Your task to perform on an android device: open chrome and create a bookmark for the current page Image 0: 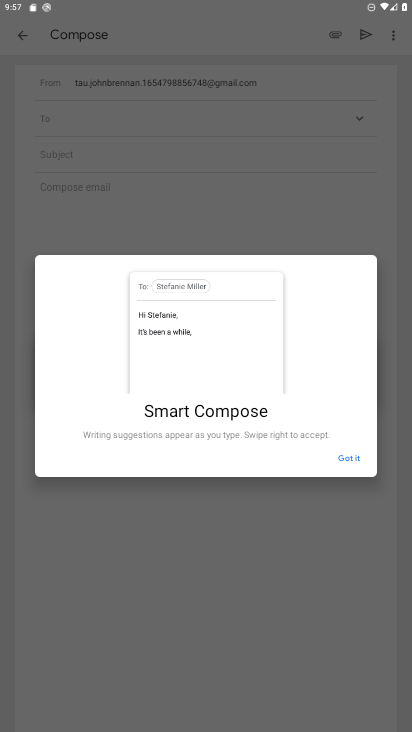
Step 0: press home button
Your task to perform on an android device: open chrome and create a bookmark for the current page Image 1: 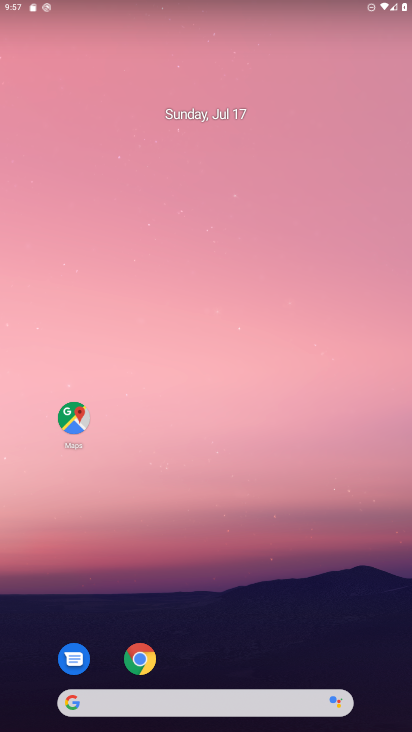
Step 1: click (134, 652)
Your task to perform on an android device: open chrome and create a bookmark for the current page Image 2: 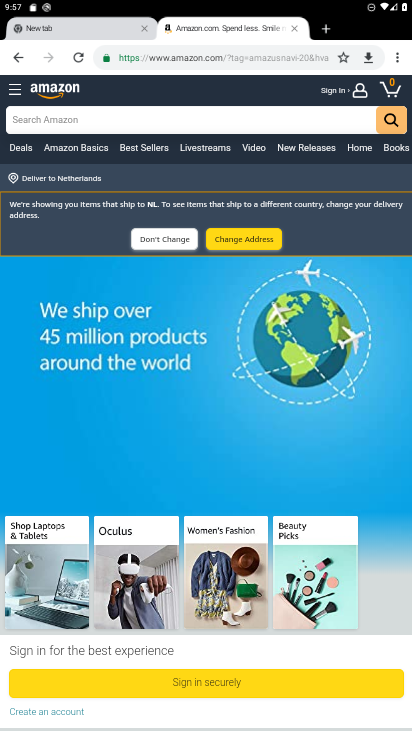
Step 2: click (401, 51)
Your task to perform on an android device: open chrome and create a bookmark for the current page Image 3: 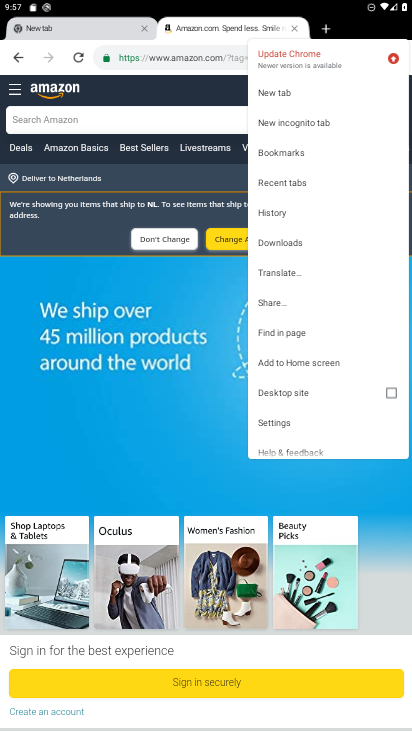
Step 3: click (178, 78)
Your task to perform on an android device: open chrome and create a bookmark for the current page Image 4: 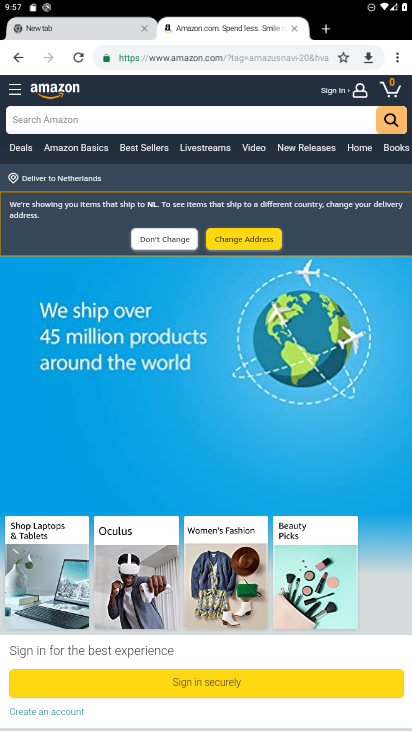
Step 4: click (348, 62)
Your task to perform on an android device: open chrome and create a bookmark for the current page Image 5: 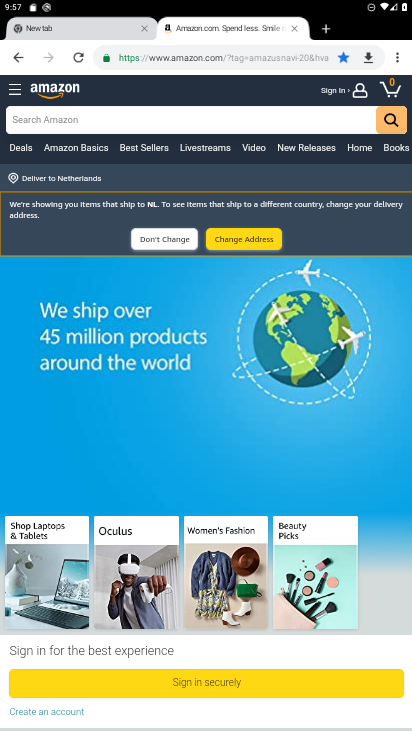
Step 5: task complete